Your task to perform on an android device: delete location history Image 0: 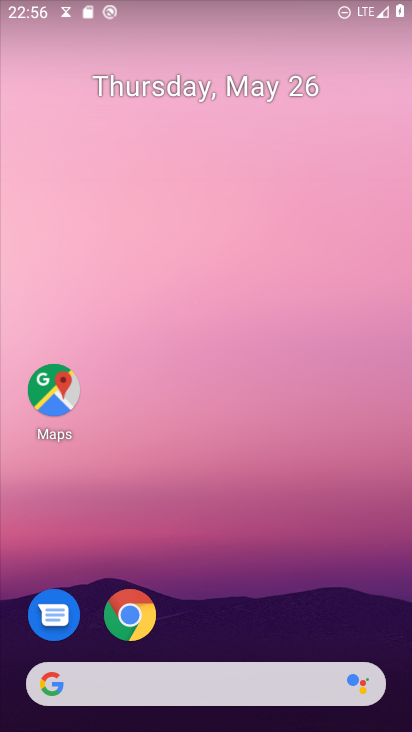
Step 0: drag from (262, 546) to (267, 231)
Your task to perform on an android device: delete location history Image 1: 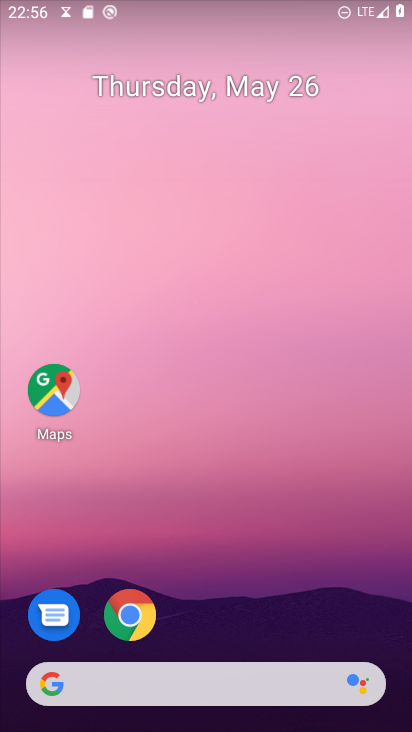
Step 1: click (52, 385)
Your task to perform on an android device: delete location history Image 2: 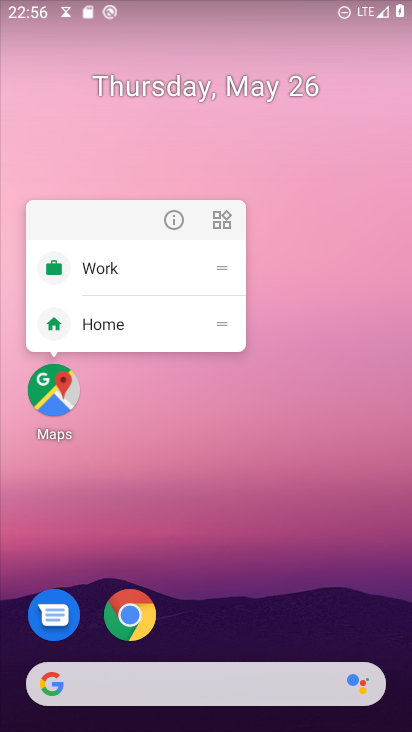
Step 2: click (58, 375)
Your task to perform on an android device: delete location history Image 3: 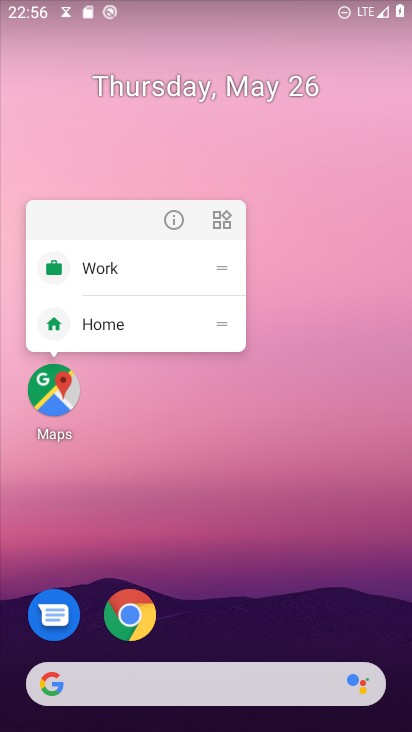
Step 3: click (55, 377)
Your task to perform on an android device: delete location history Image 4: 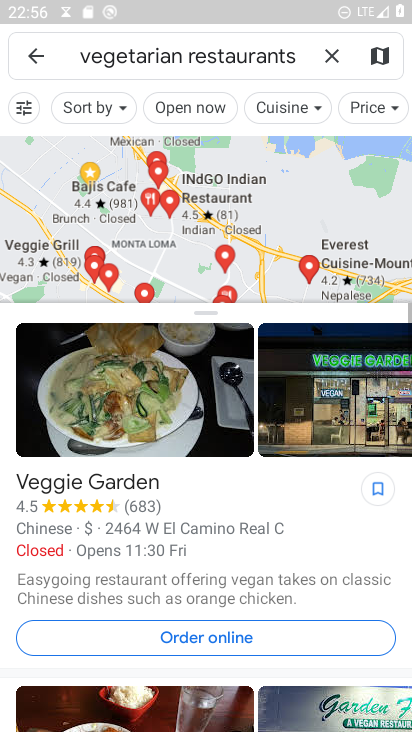
Step 4: click (333, 58)
Your task to perform on an android device: delete location history Image 5: 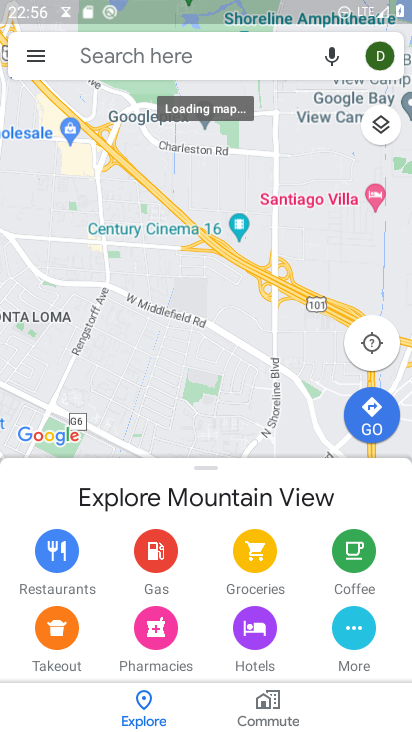
Step 5: click (20, 53)
Your task to perform on an android device: delete location history Image 6: 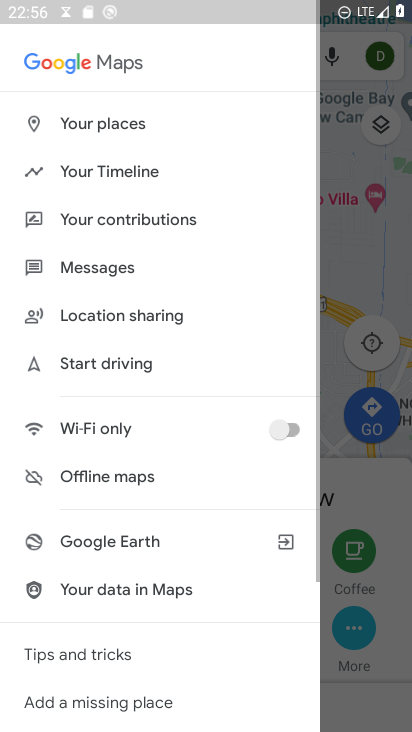
Step 6: click (35, 57)
Your task to perform on an android device: delete location history Image 7: 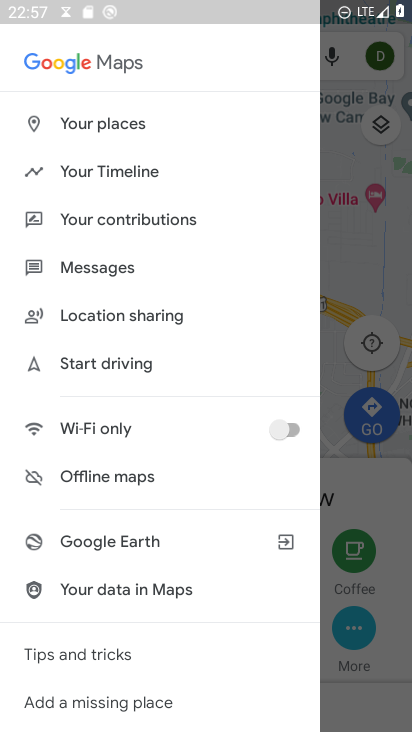
Step 7: click (86, 172)
Your task to perform on an android device: delete location history Image 8: 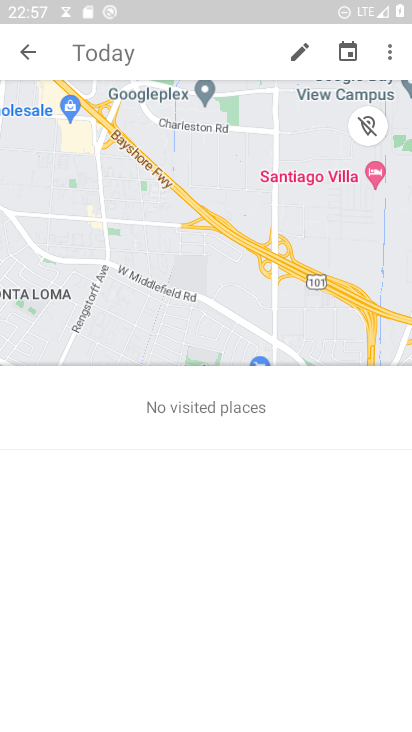
Step 8: click (391, 47)
Your task to perform on an android device: delete location history Image 9: 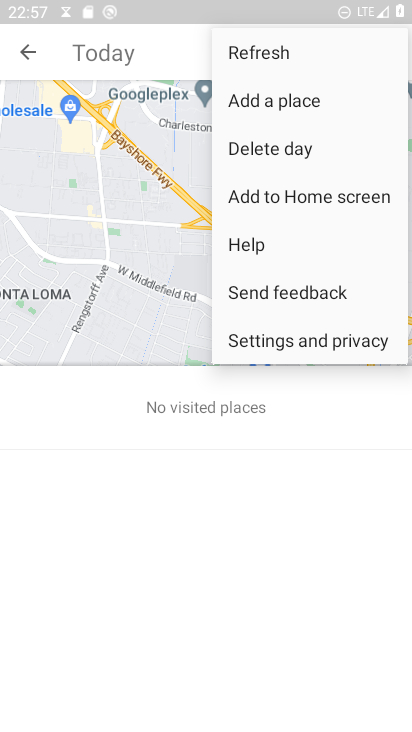
Step 9: click (269, 336)
Your task to perform on an android device: delete location history Image 10: 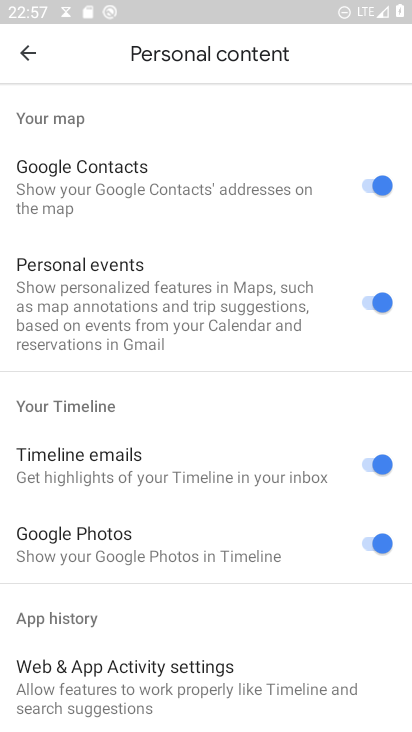
Step 10: drag from (205, 645) to (207, 264)
Your task to perform on an android device: delete location history Image 11: 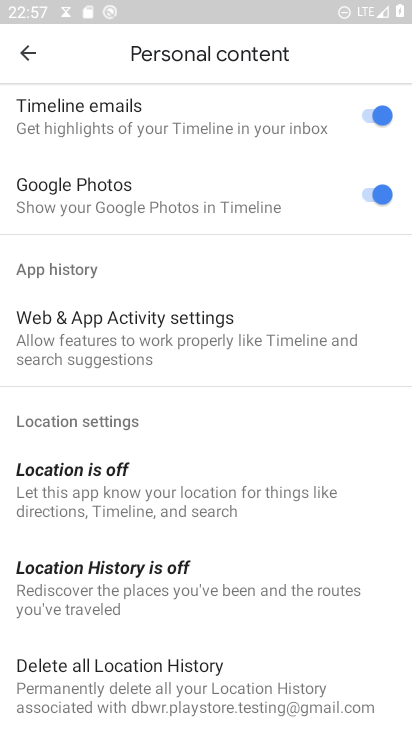
Step 11: click (177, 670)
Your task to perform on an android device: delete location history Image 12: 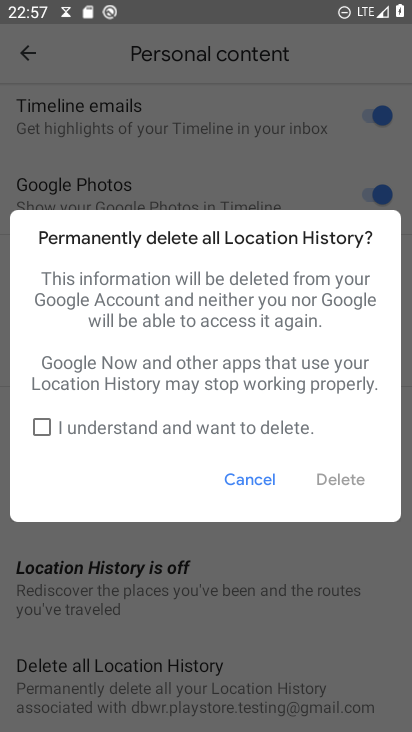
Step 12: click (80, 426)
Your task to perform on an android device: delete location history Image 13: 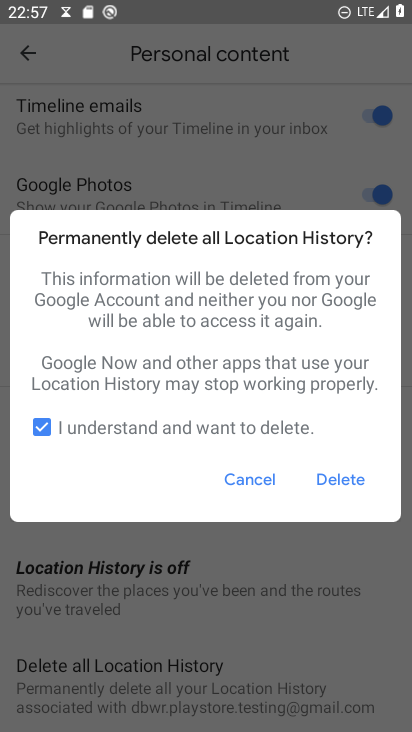
Step 13: click (341, 472)
Your task to perform on an android device: delete location history Image 14: 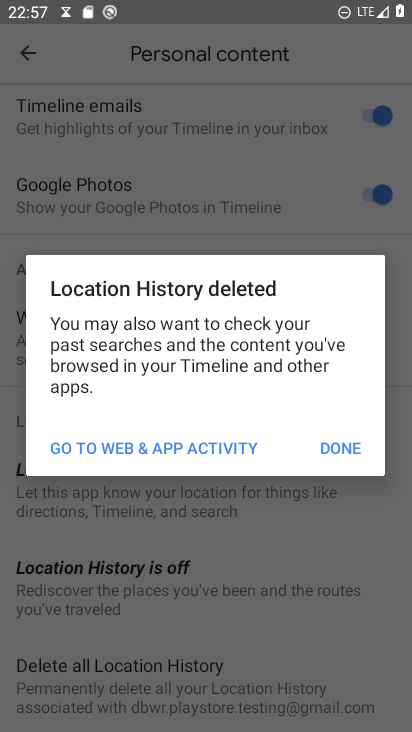
Step 14: click (323, 451)
Your task to perform on an android device: delete location history Image 15: 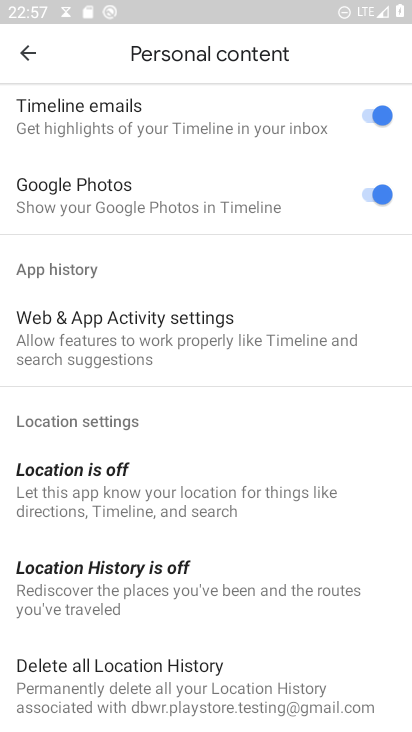
Step 15: task complete